Your task to perform on an android device: Do I have any events today? Image 0: 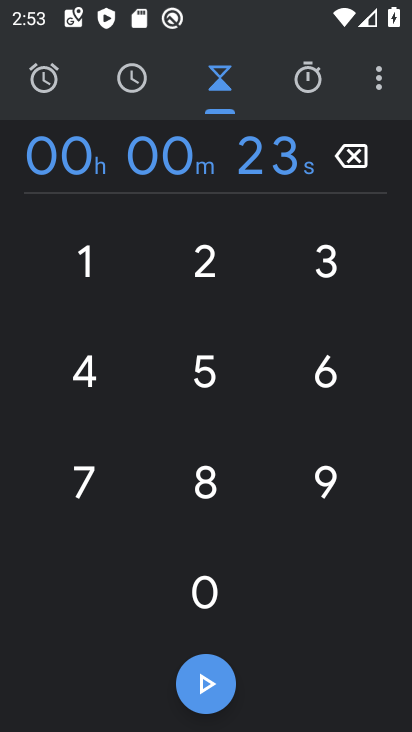
Step 0: press home button
Your task to perform on an android device: Do I have any events today? Image 1: 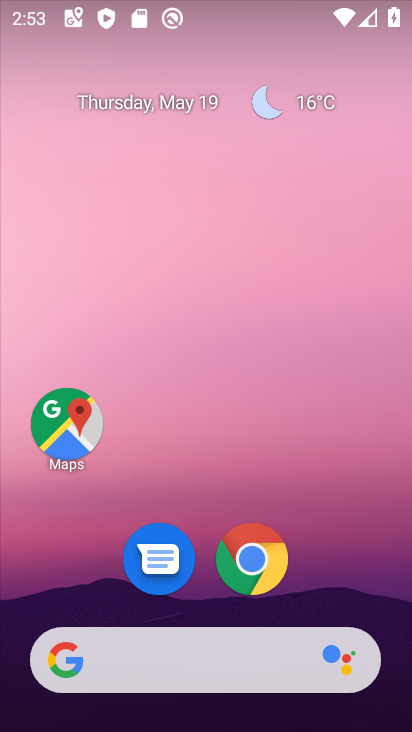
Step 1: drag from (207, 599) to (196, 228)
Your task to perform on an android device: Do I have any events today? Image 2: 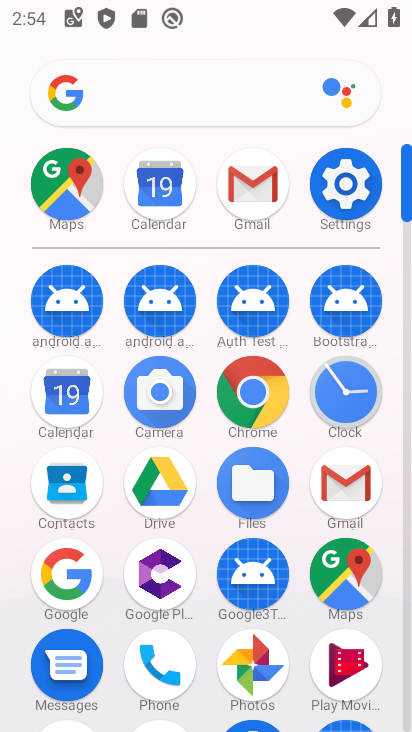
Step 2: click (180, 205)
Your task to perform on an android device: Do I have any events today? Image 3: 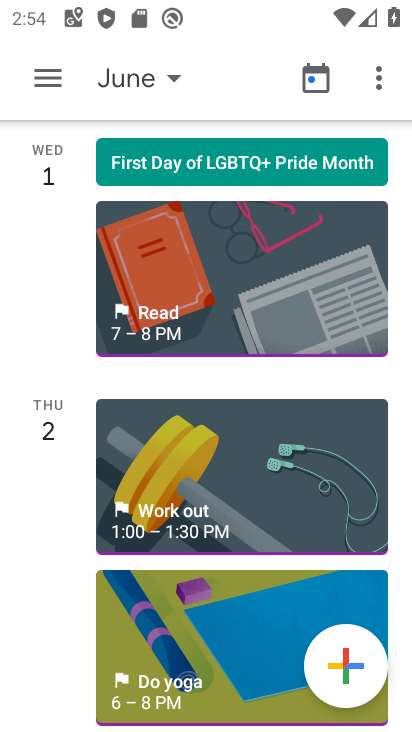
Step 3: click (156, 74)
Your task to perform on an android device: Do I have any events today? Image 4: 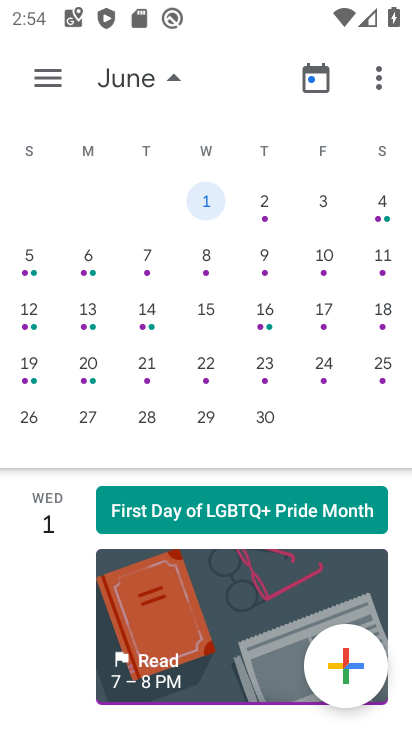
Step 4: drag from (62, 299) to (339, 334)
Your task to perform on an android device: Do I have any events today? Image 5: 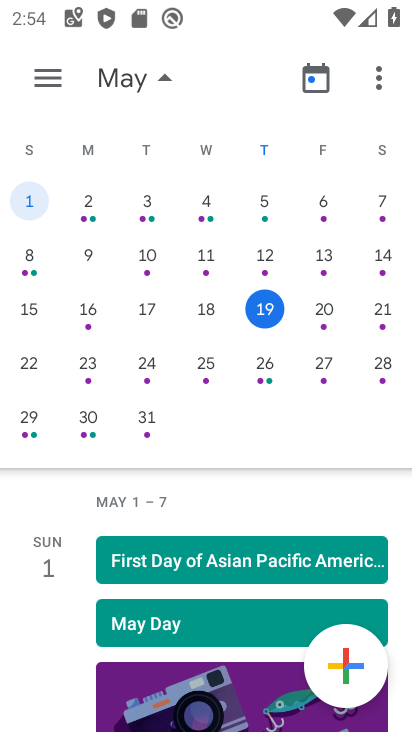
Step 5: click (267, 311)
Your task to perform on an android device: Do I have any events today? Image 6: 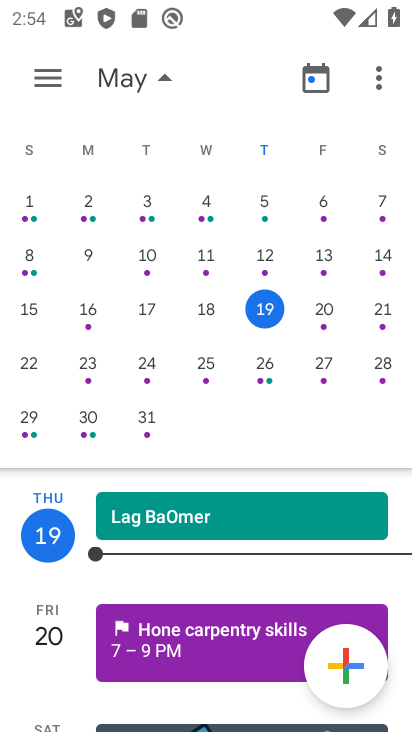
Step 6: task complete